Your task to perform on an android device: What's on my calendar today? Image 0: 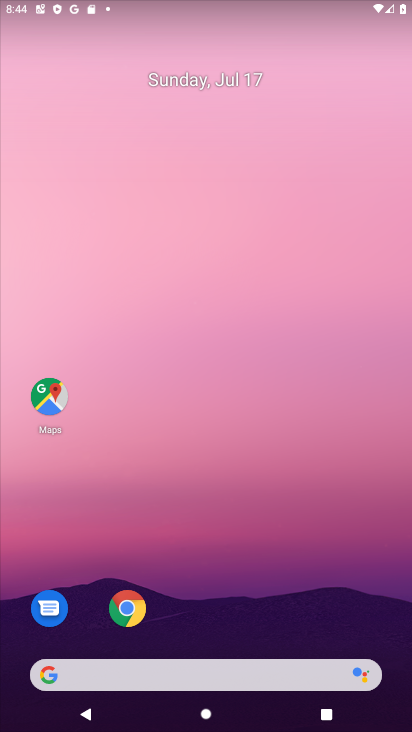
Step 0: drag from (180, 659) to (179, 265)
Your task to perform on an android device: What's on my calendar today? Image 1: 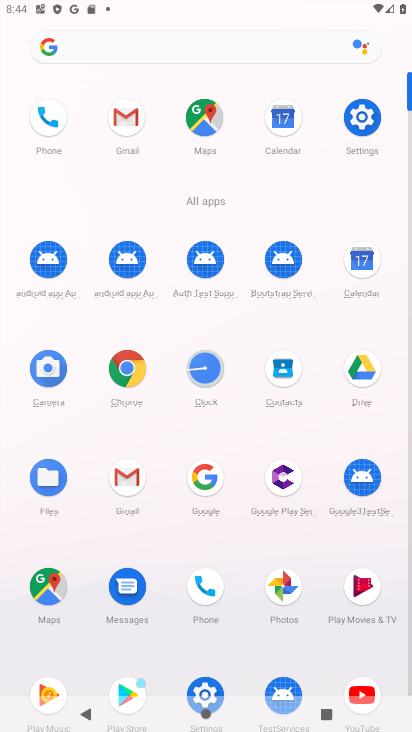
Step 1: click (356, 265)
Your task to perform on an android device: What's on my calendar today? Image 2: 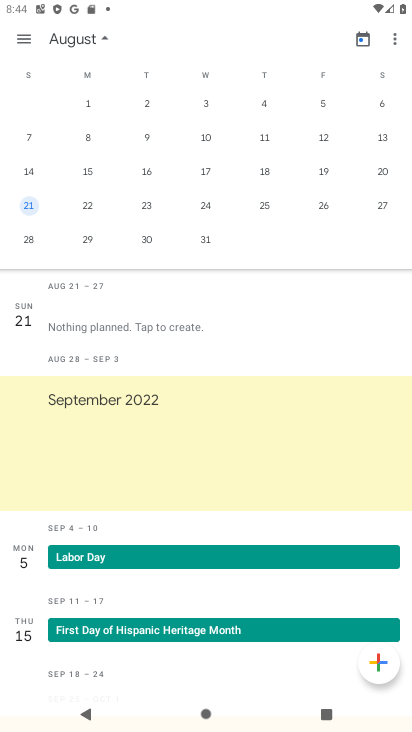
Step 2: drag from (57, 156) to (400, 189)
Your task to perform on an android device: What's on my calendar today? Image 3: 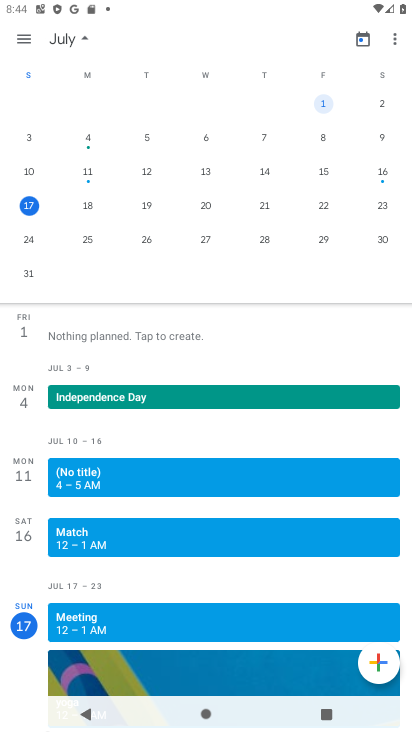
Step 3: click (25, 203)
Your task to perform on an android device: What's on my calendar today? Image 4: 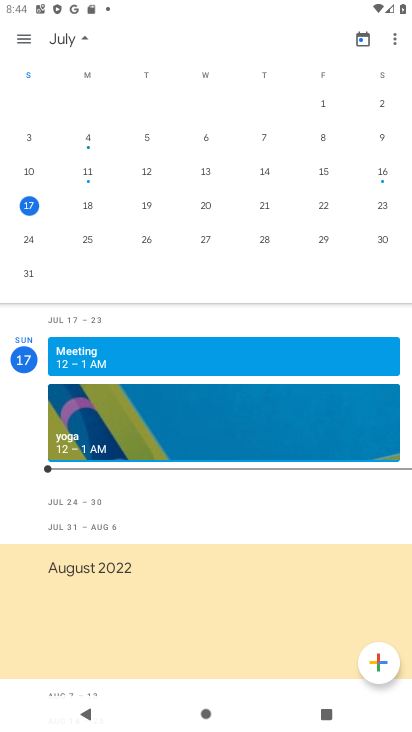
Step 4: click (89, 203)
Your task to perform on an android device: What's on my calendar today? Image 5: 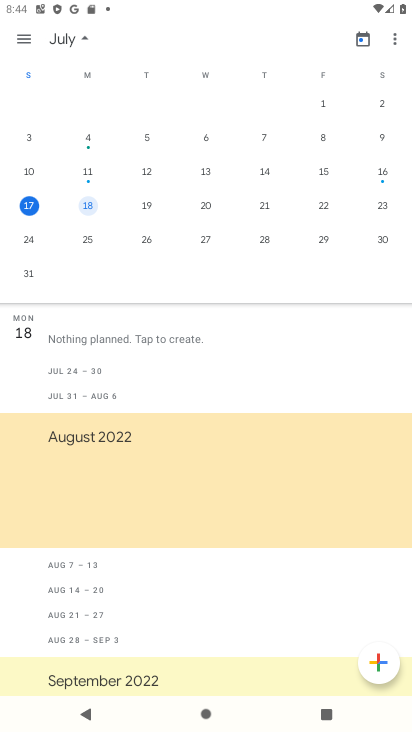
Step 5: task complete